Your task to perform on an android device: Show me popular games on the Play Store Image 0: 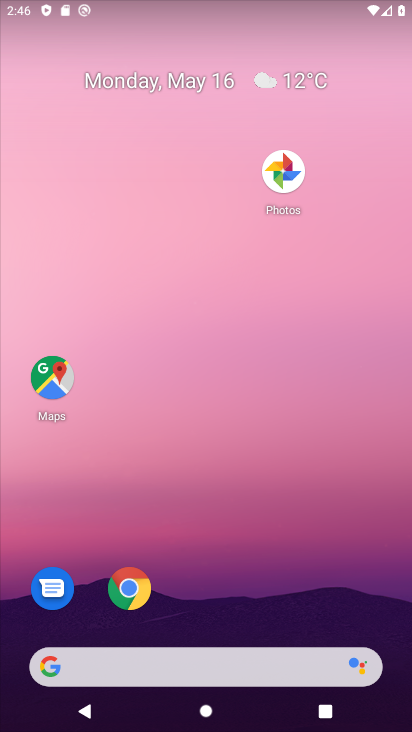
Step 0: drag from (208, 622) to (182, 98)
Your task to perform on an android device: Show me popular games on the Play Store Image 1: 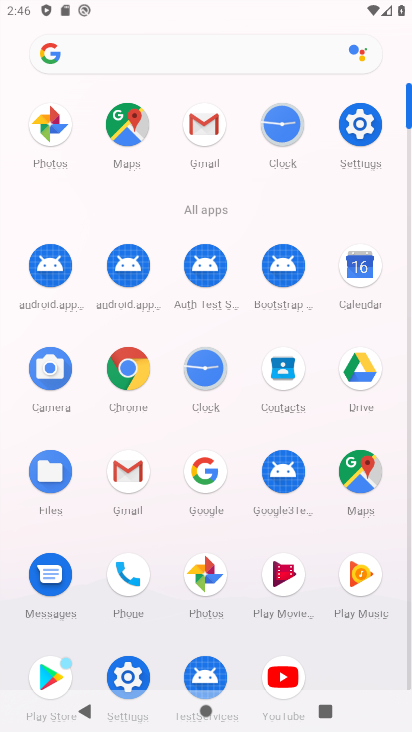
Step 1: click (43, 675)
Your task to perform on an android device: Show me popular games on the Play Store Image 2: 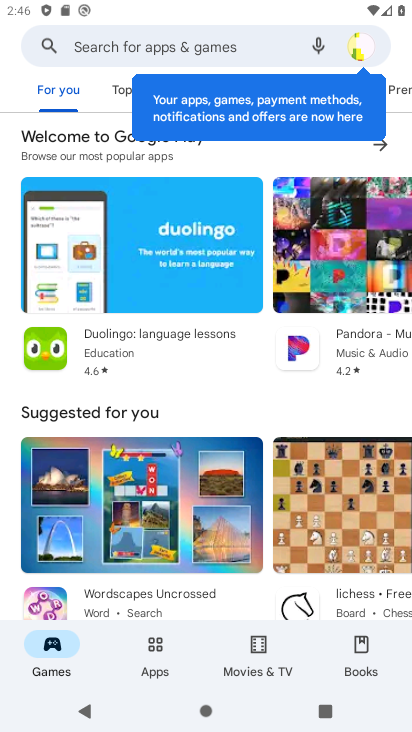
Step 2: click (3, 448)
Your task to perform on an android device: Show me popular games on the Play Store Image 3: 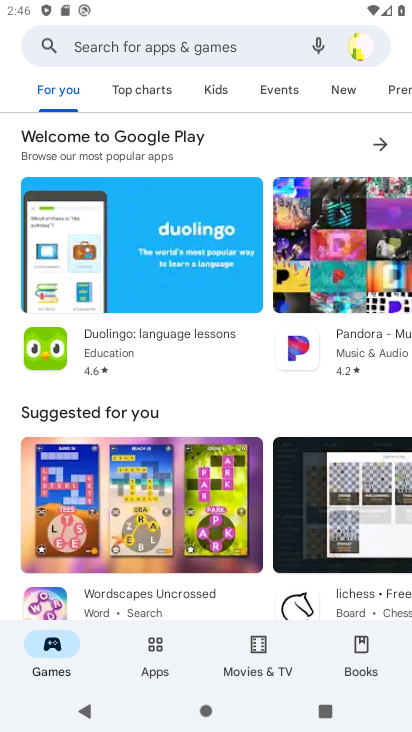
Step 3: click (159, 91)
Your task to perform on an android device: Show me popular games on the Play Store Image 4: 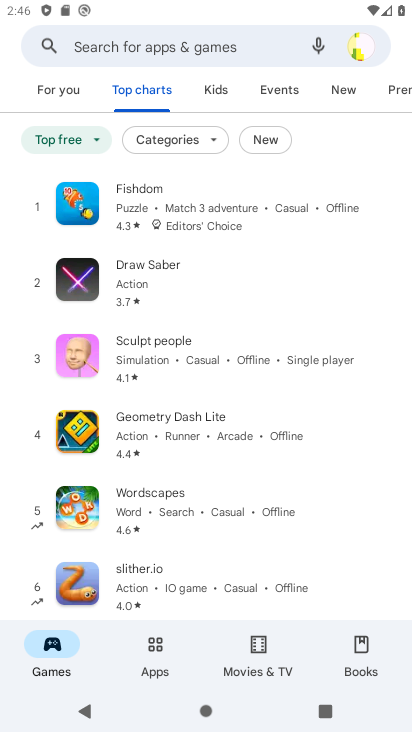
Step 4: task complete